Your task to perform on an android device: Is it going to rain this weekend? Image 0: 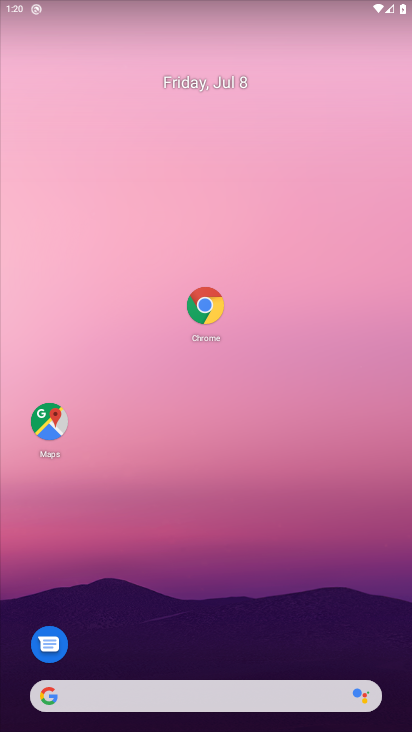
Step 0: drag from (191, 677) to (173, 313)
Your task to perform on an android device: Is it going to rain this weekend? Image 1: 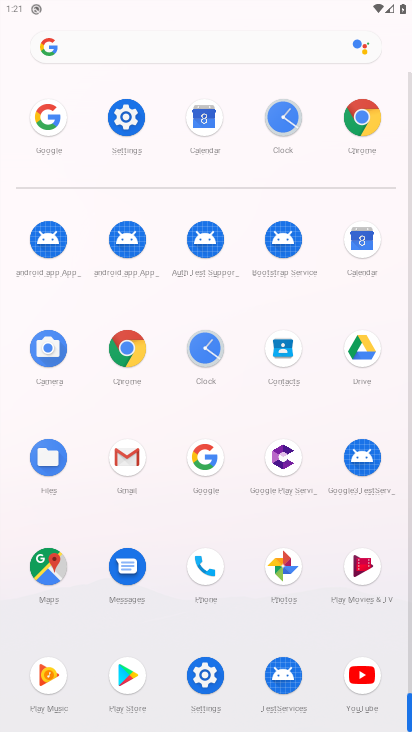
Step 1: click (205, 467)
Your task to perform on an android device: Is it going to rain this weekend? Image 2: 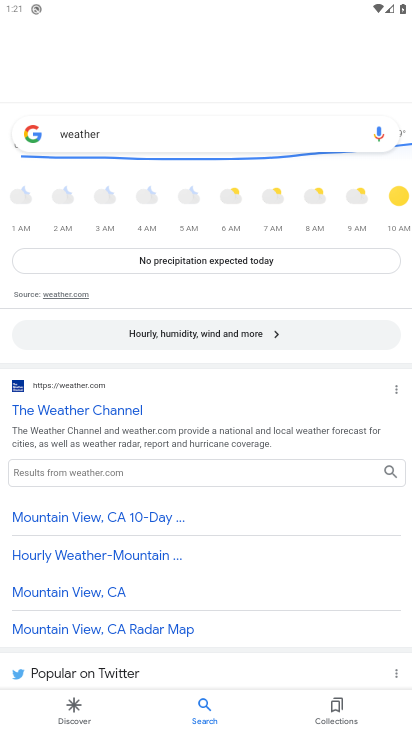
Step 2: click (109, 132)
Your task to perform on an android device: Is it going to rain this weekend? Image 3: 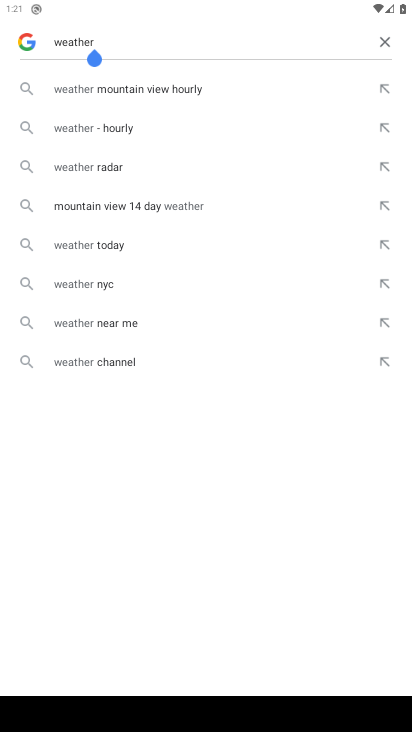
Step 3: click (387, 43)
Your task to perform on an android device: Is it going to rain this weekend? Image 4: 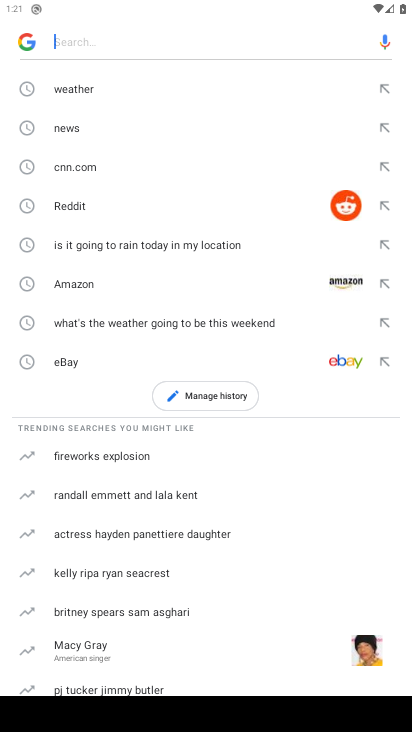
Step 4: type "Is it going to rain this weekend?"
Your task to perform on an android device: Is it going to rain this weekend? Image 5: 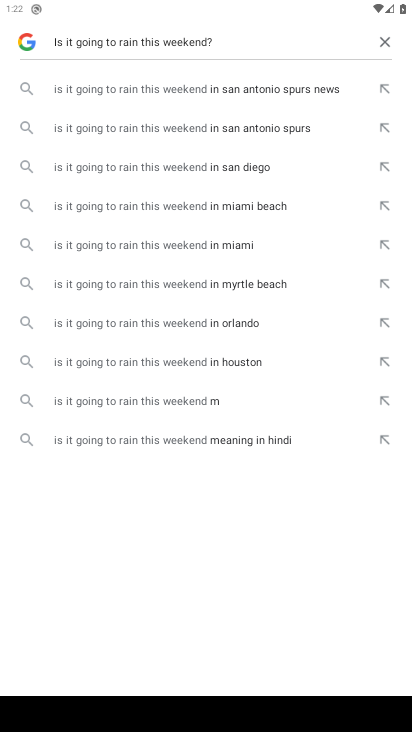
Step 5: click (134, 403)
Your task to perform on an android device: Is it going to rain this weekend? Image 6: 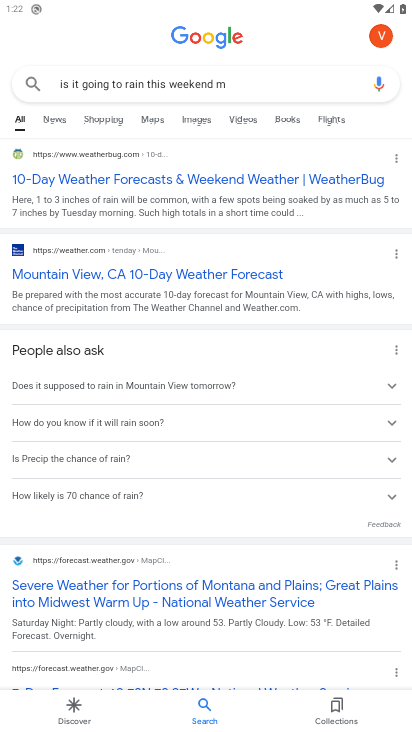
Step 6: click (116, 179)
Your task to perform on an android device: Is it going to rain this weekend? Image 7: 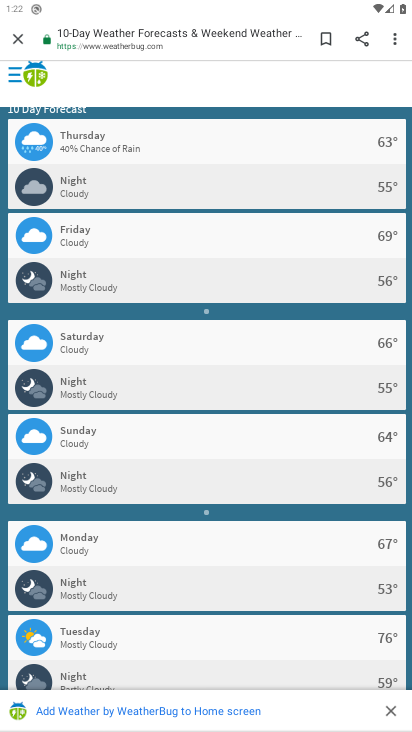
Step 7: task complete